Your task to perform on an android device: turn on the 24-hour format for clock Image 0: 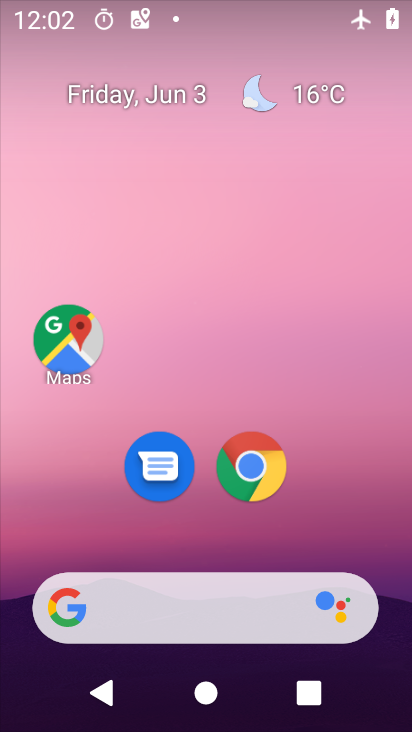
Step 0: drag from (197, 471) to (223, 179)
Your task to perform on an android device: turn on the 24-hour format for clock Image 1: 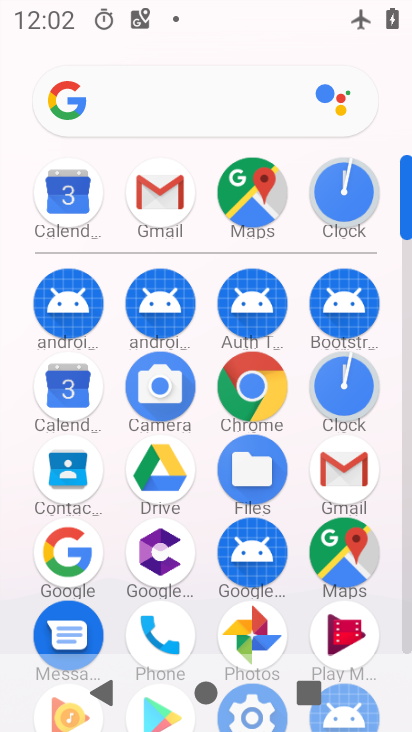
Step 1: click (337, 378)
Your task to perform on an android device: turn on the 24-hour format for clock Image 2: 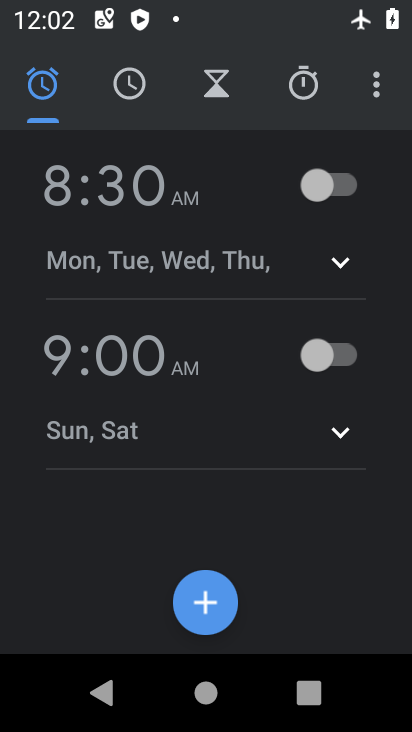
Step 2: click (376, 97)
Your task to perform on an android device: turn on the 24-hour format for clock Image 3: 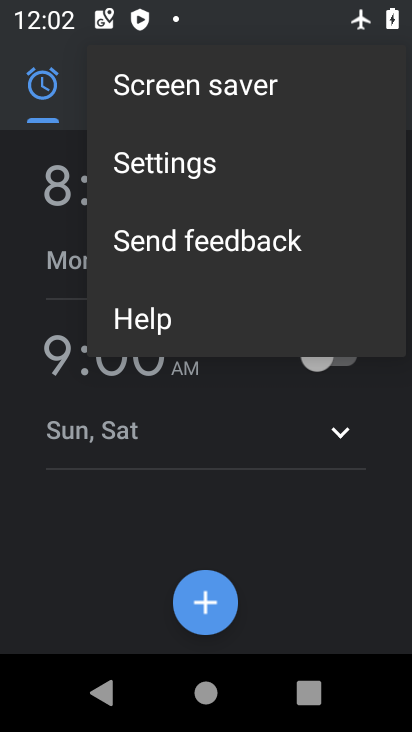
Step 3: click (166, 163)
Your task to perform on an android device: turn on the 24-hour format for clock Image 4: 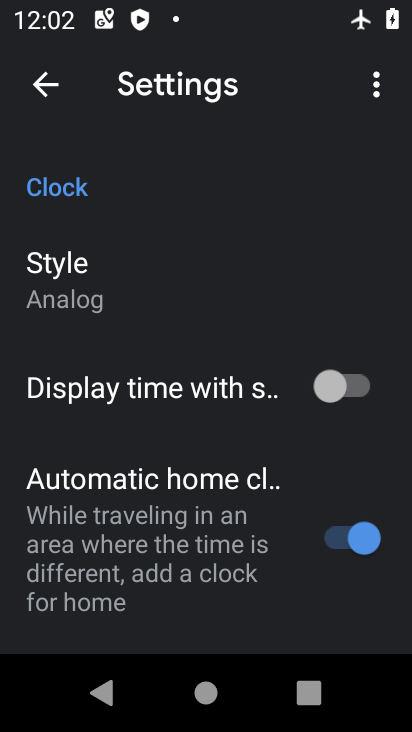
Step 4: drag from (163, 545) to (148, 237)
Your task to perform on an android device: turn on the 24-hour format for clock Image 5: 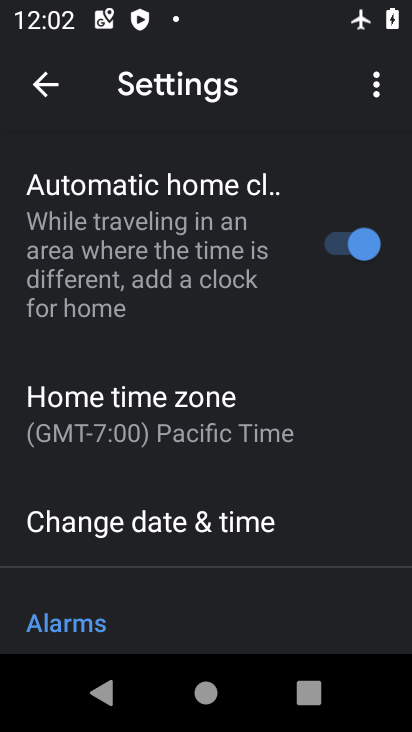
Step 5: click (122, 514)
Your task to perform on an android device: turn on the 24-hour format for clock Image 6: 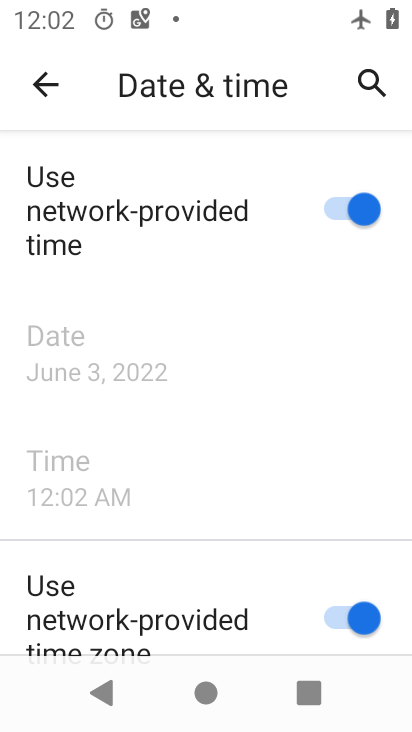
Step 6: drag from (167, 565) to (178, 226)
Your task to perform on an android device: turn on the 24-hour format for clock Image 7: 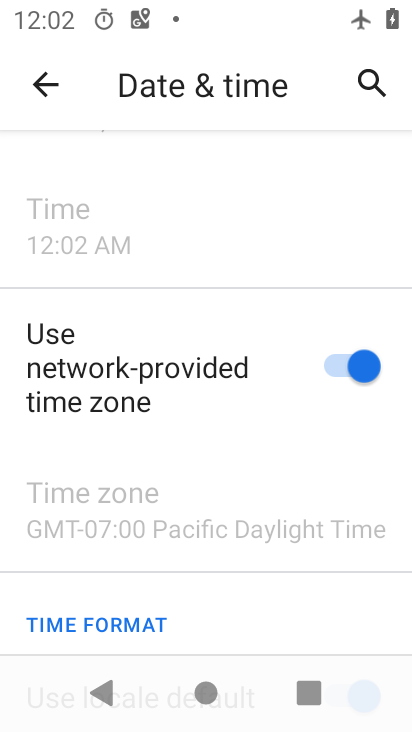
Step 7: drag from (204, 538) to (218, 260)
Your task to perform on an android device: turn on the 24-hour format for clock Image 8: 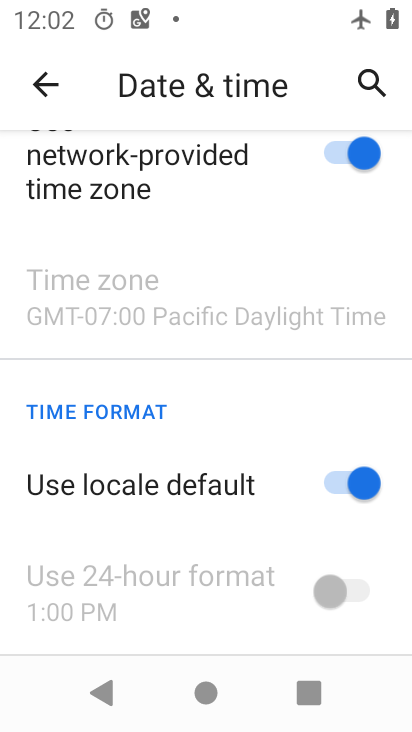
Step 8: click (330, 463)
Your task to perform on an android device: turn on the 24-hour format for clock Image 9: 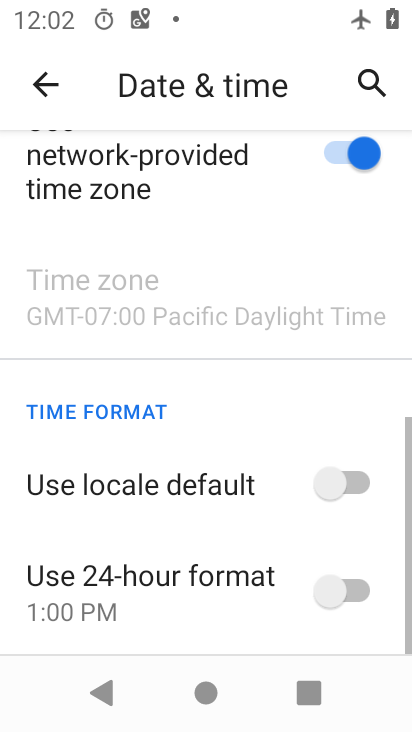
Step 9: click (360, 589)
Your task to perform on an android device: turn on the 24-hour format for clock Image 10: 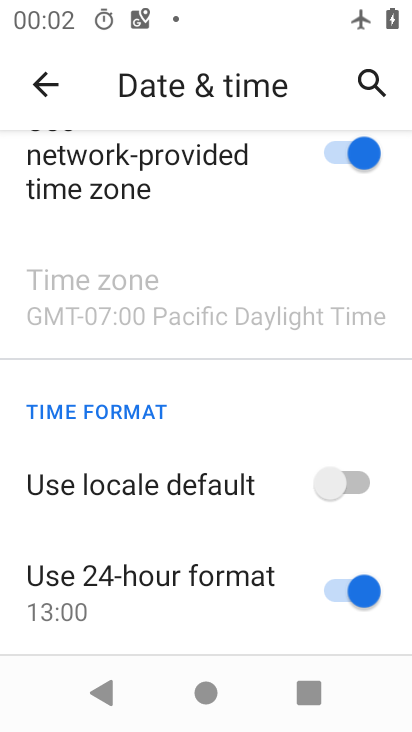
Step 10: task complete